Your task to perform on an android device: Open Google Maps Image 0: 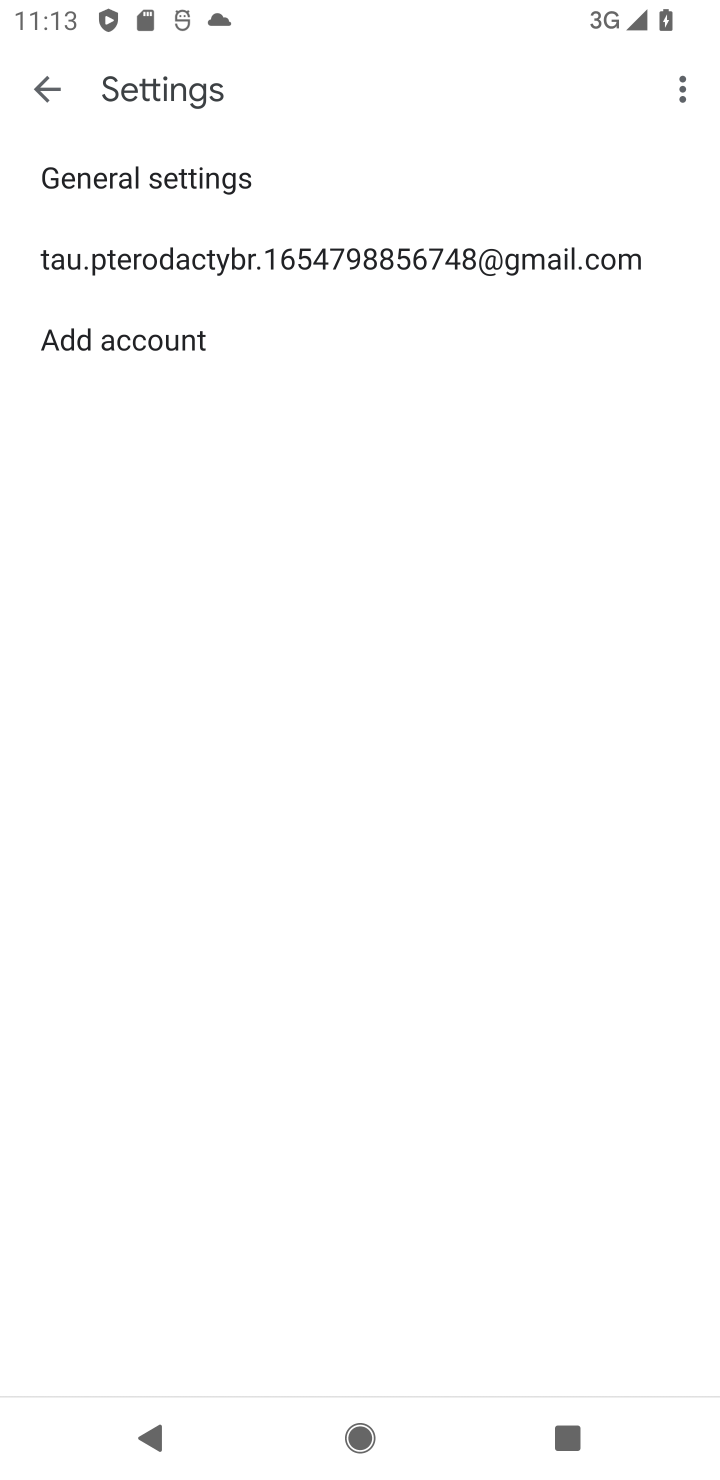
Step 0: press home button
Your task to perform on an android device: Open Google Maps Image 1: 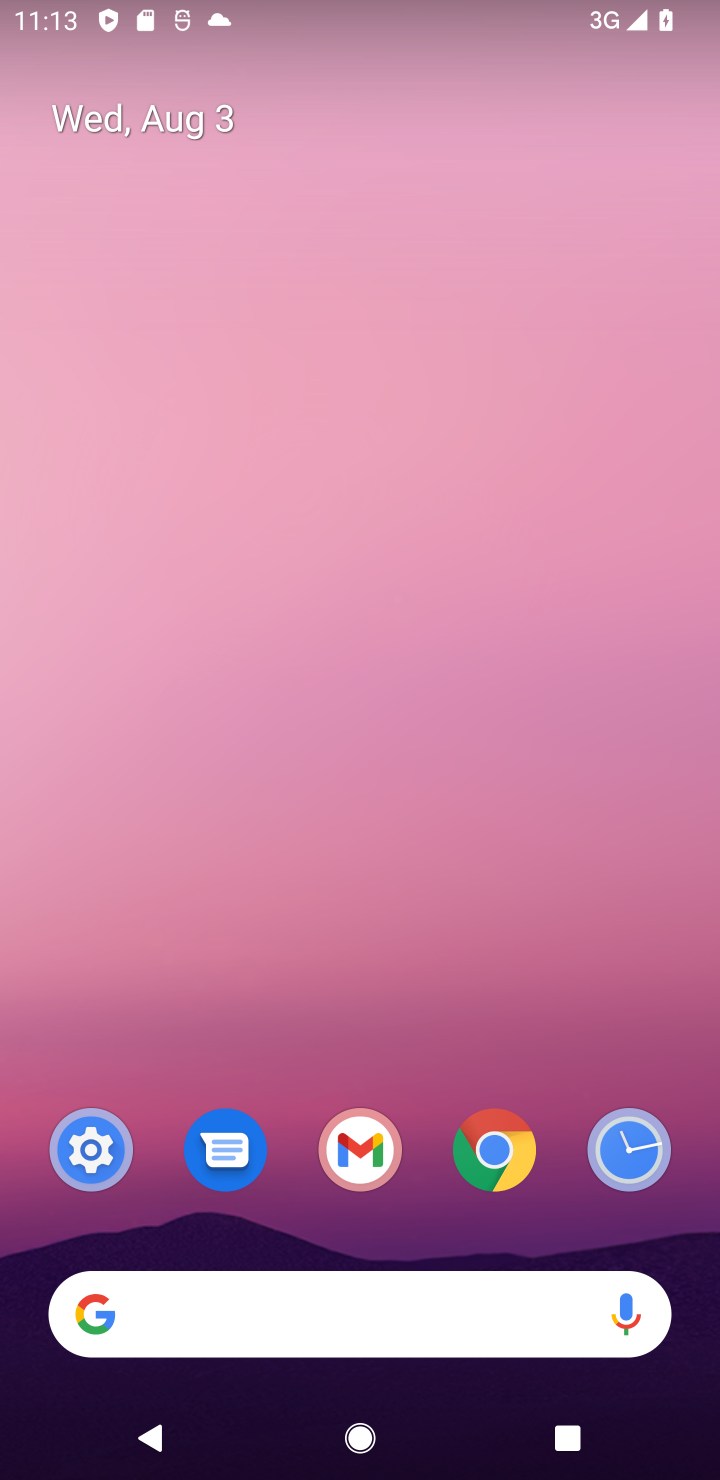
Step 1: drag from (543, 1066) to (575, 519)
Your task to perform on an android device: Open Google Maps Image 2: 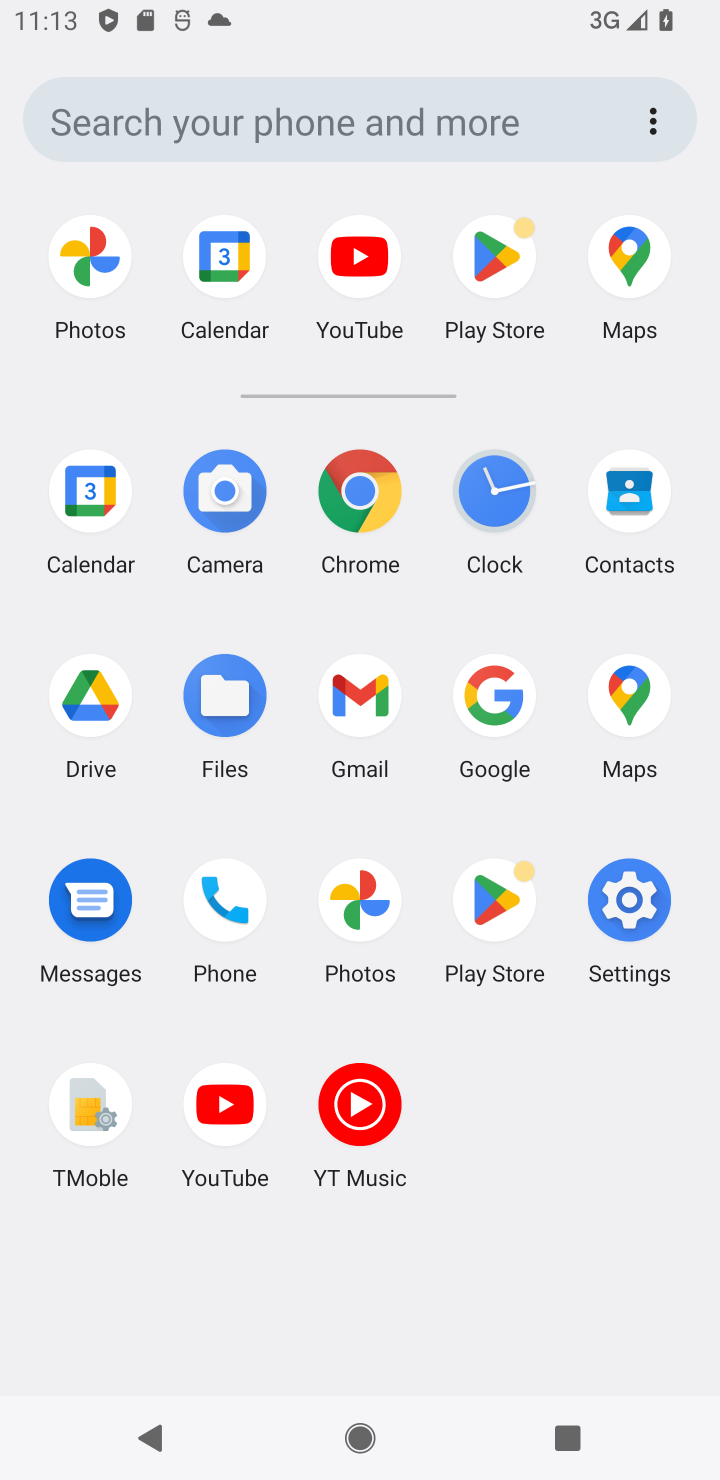
Step 2: click (627, 716)
Your task to perform on an android device: Open Google Maps Image 3: 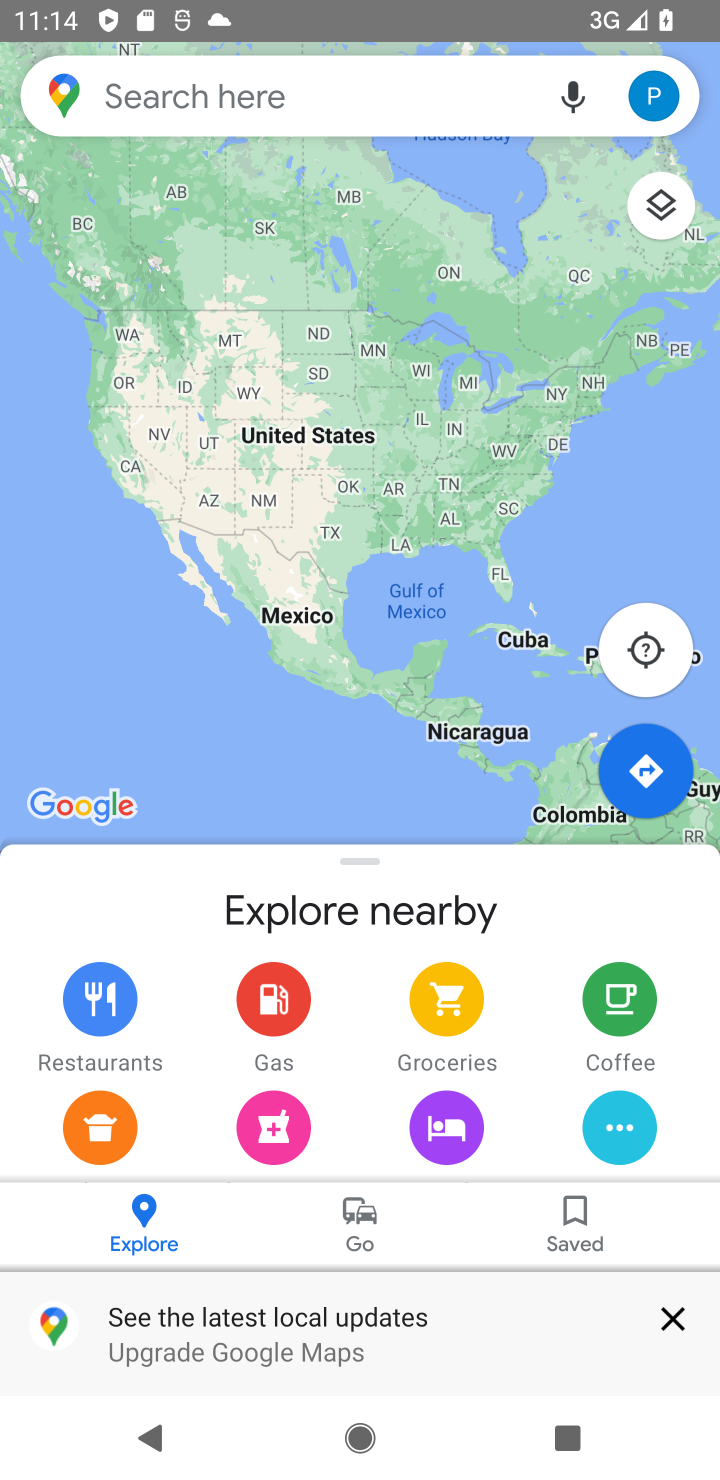
Step 3: task complete